Your task to perform on an android device: check data usage Image 0: 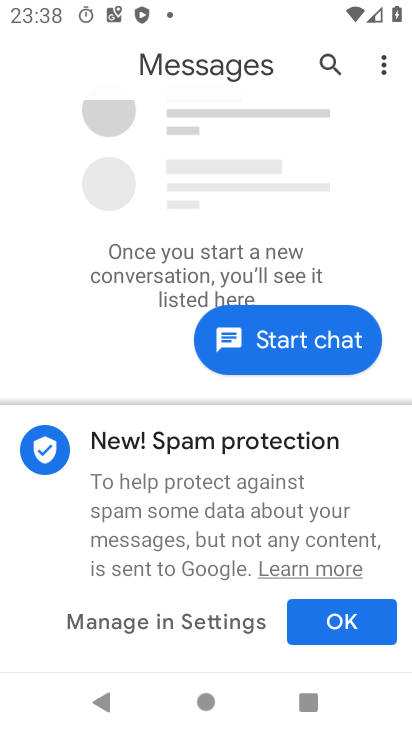
Step 0: press home button
Your task to perform on an android device: check data usage Image 1: 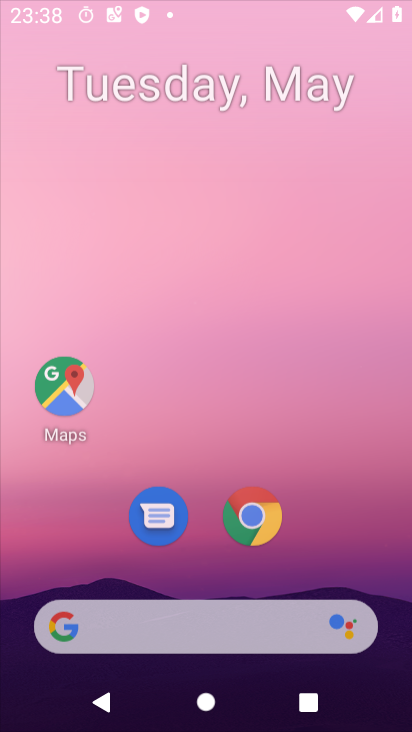
Step 1: drag from (201, 521) to (251, 2)
Your task to perform on an android device: check data usage Image 2: 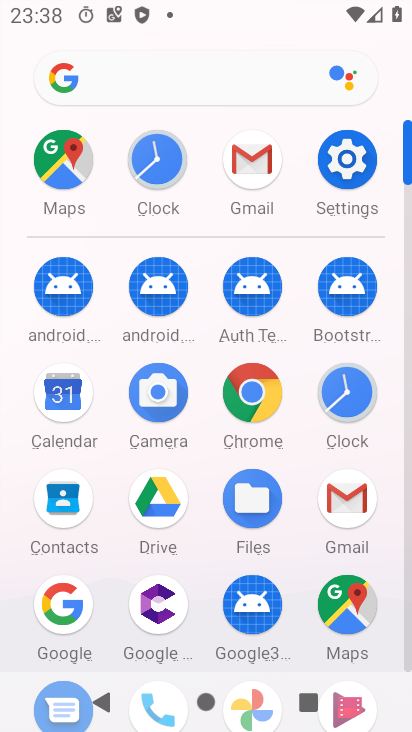
Step 2: click (361, 156)
Your task to perform on an android device: check data usage Image 3: 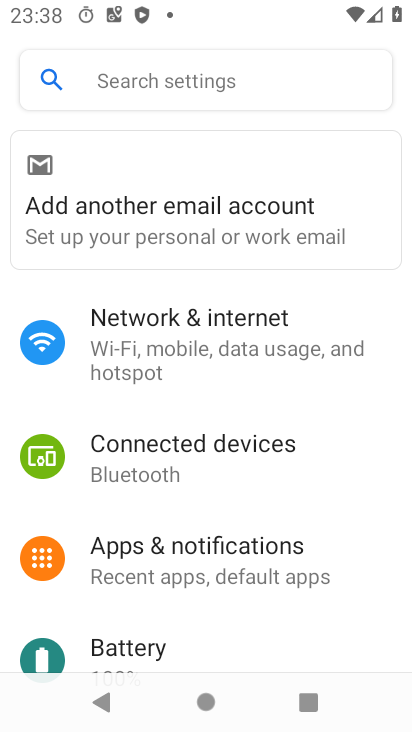
Step 3: click (212, 337)
Your task to perform on an android device: check data usage Image 4: 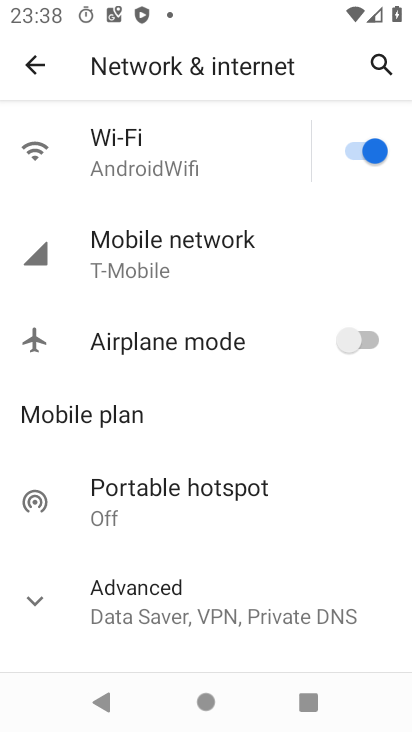
Step 4: click (173, 253)
Your task to perform on an android device: check data usage Image 5: 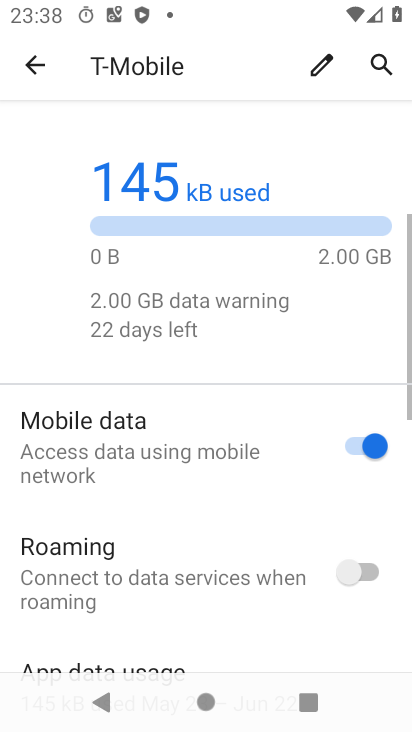
Step 5: task complete